Your task to perform on an android device: Add bose quietcomfort 35 to the cart on walmart Image 0: 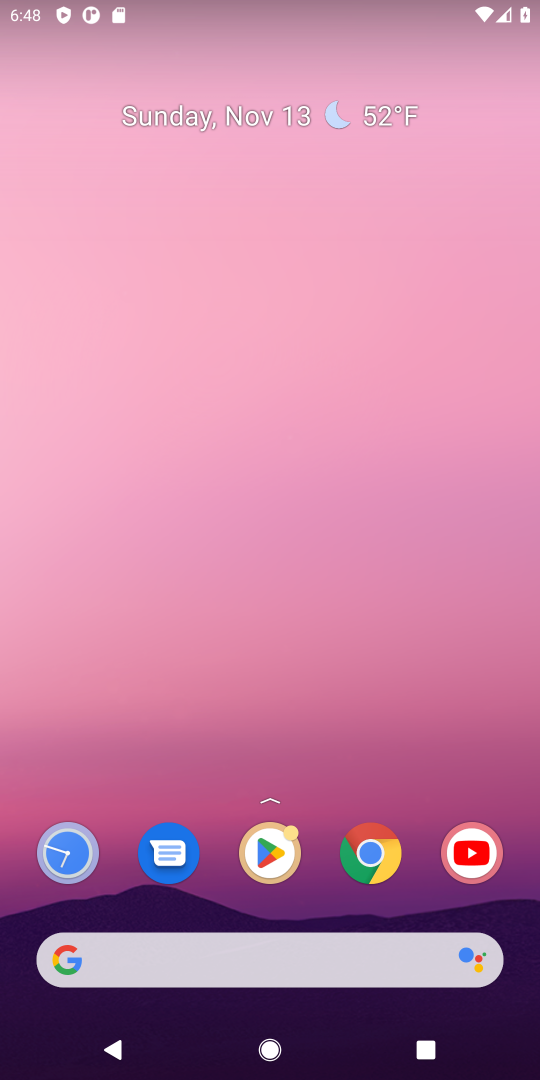
Step 0: click (107, 959)
Your task to perform on an android device: Add bose quietcomfort 35 to the cart on walmart Image 1: 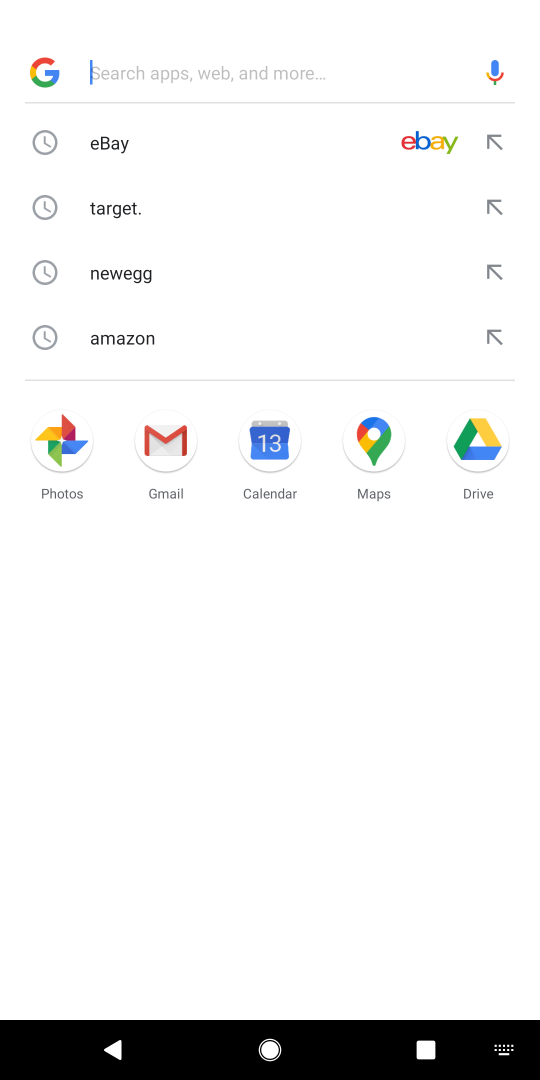
Step 1: type "walmart"
Your task to perform on an android device: Add bose quietcomfort 35 to the cart on walmart Image 2: 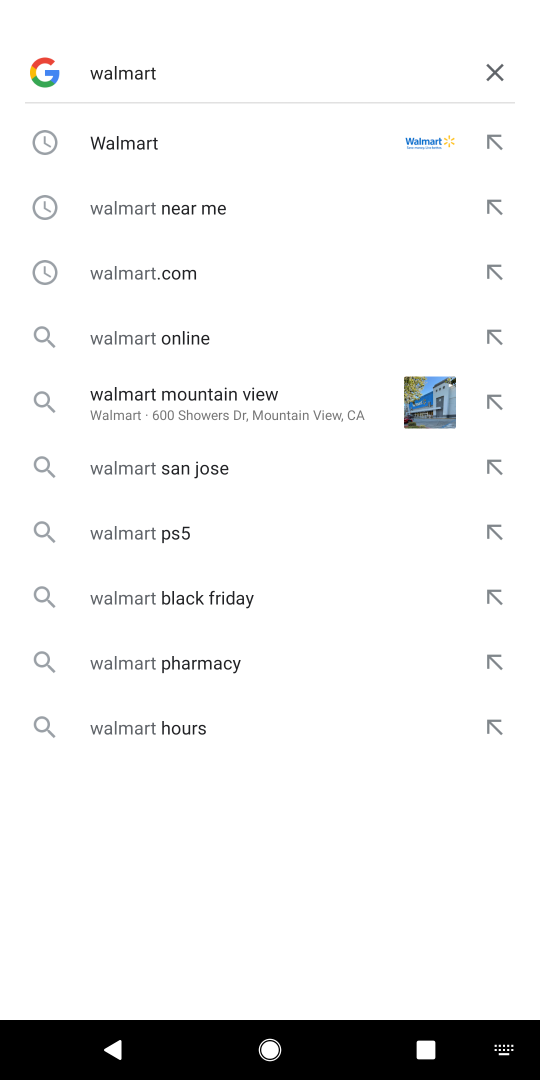
Step 2: press enter
Your task to perform on an android device: Add bose quietcomfort 35 to the cart on walmart Image 3: 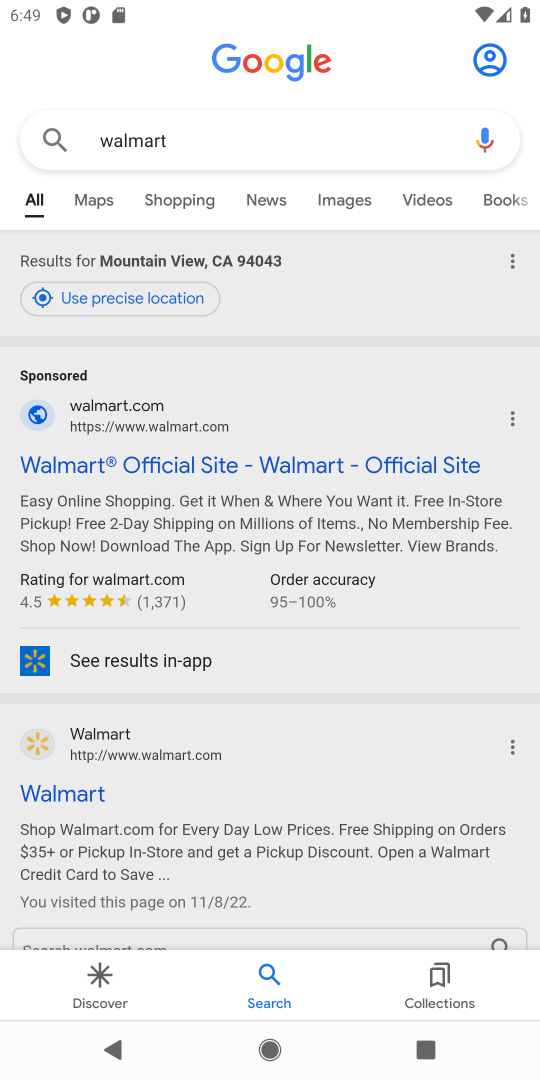
Step 3: click (182, 467)
Your task to perform on an android device: Add bose quietcomfort 35 to the cart on walmart Image 4: 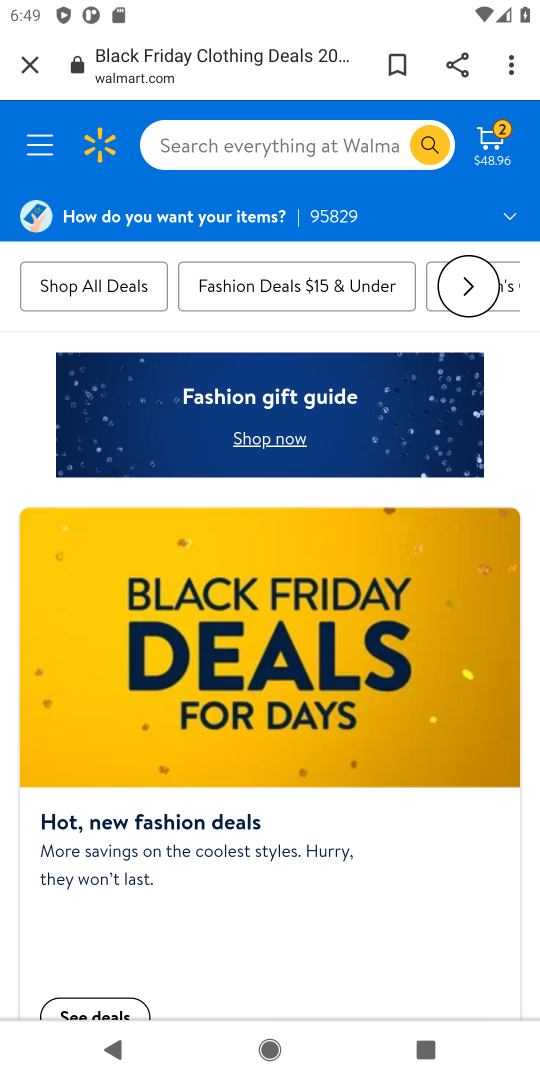
Step 4: click (195, 141)
Your task to perform on an android device: Add bose quietcomfort 35 to the cart on walmart Image 5: 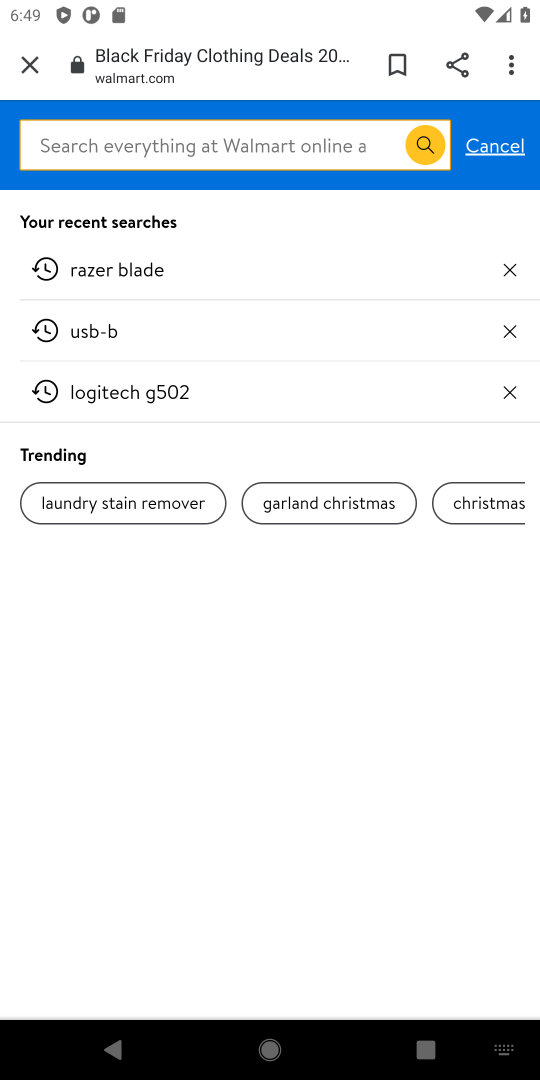
Step 5: type "bose quietcomfort 35"
Your task to perform on an android device: Add bose quietcomfort 35 to the cart on walmart Image 6: 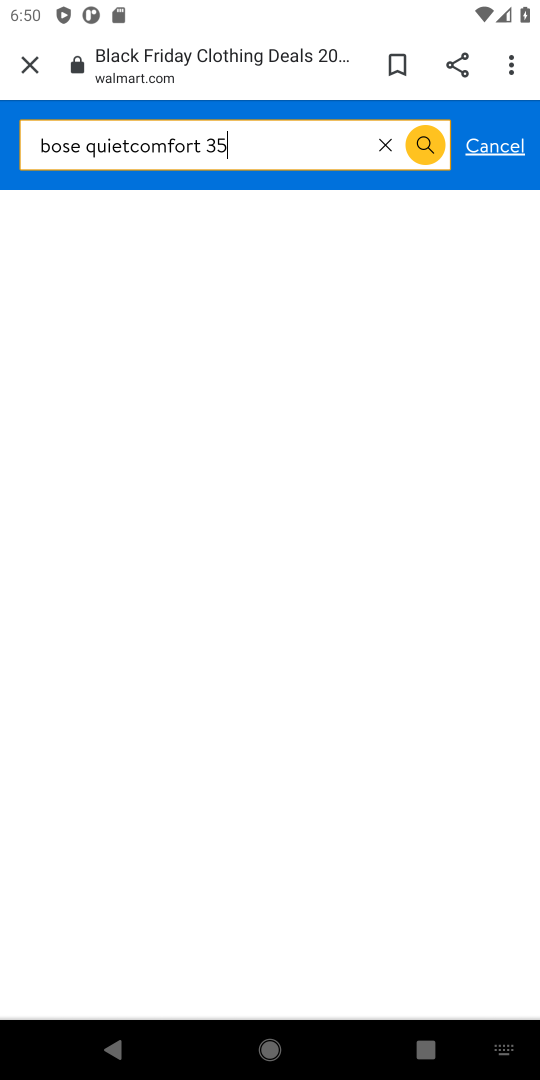
Step 6: press enter
Your task to perform on an android device: Add bose quietcomfort 35 to the cart on walmart Image 7: 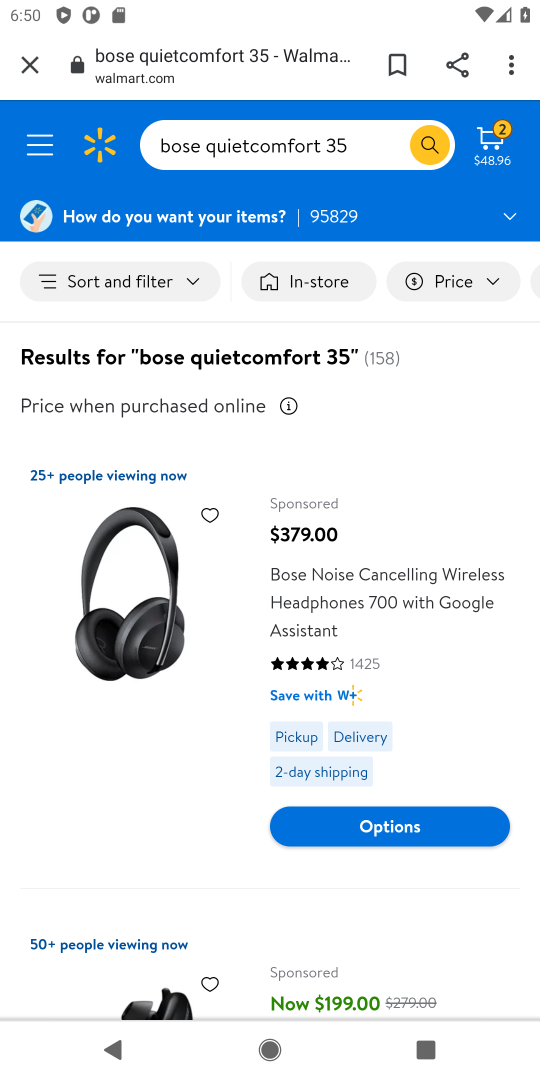
Step 7: click (321, 581)
Your task to perform on an android device: Add bose quietcomfort 35 to the cart on walmart Image 8: 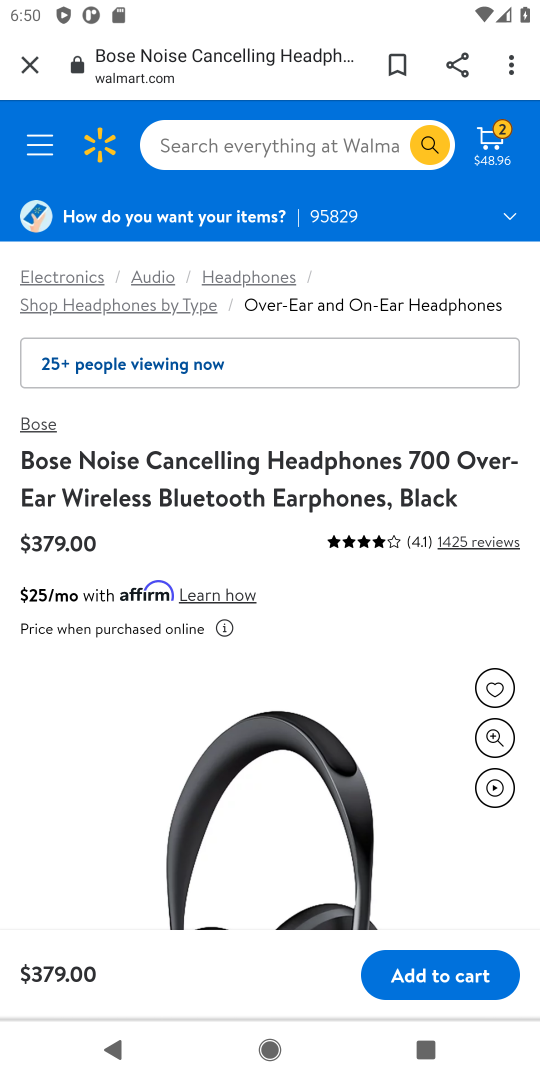
Step 8: click (406, 980)
Your task to perform on an android device: Add bose quietcomfort 35 to the cart on walmart Image 9: 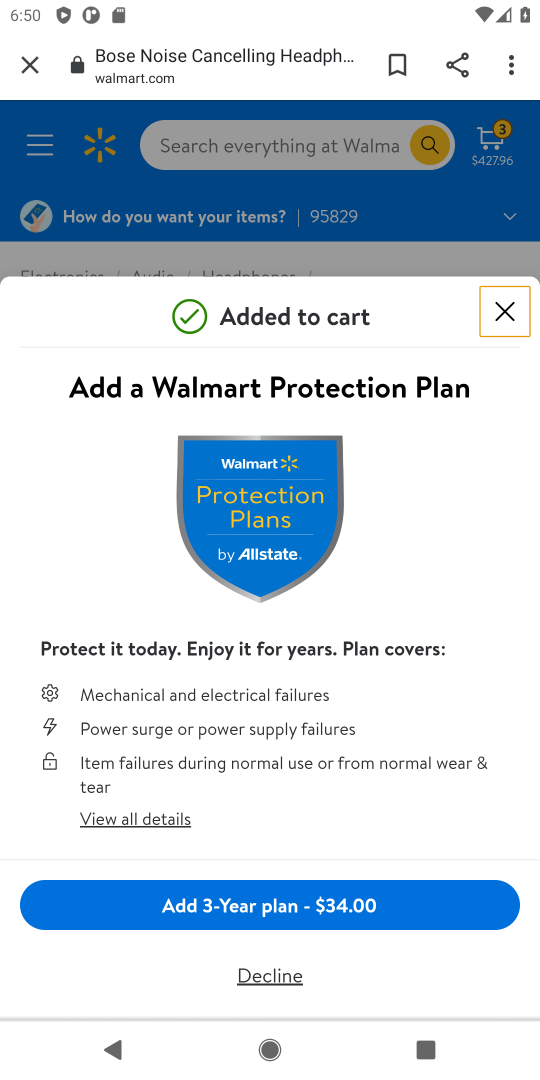
Step 9: task complete